Your task to perform on an android device: turn on wifi Image 0: 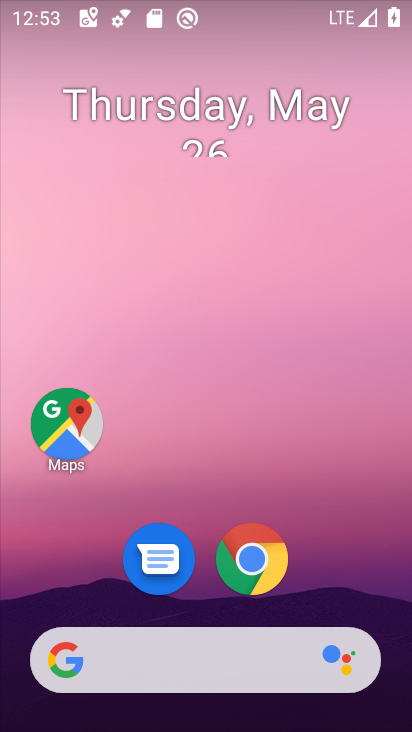
Step 0: press home button
Your task to perform on an android device: turn on wifi Image 1: 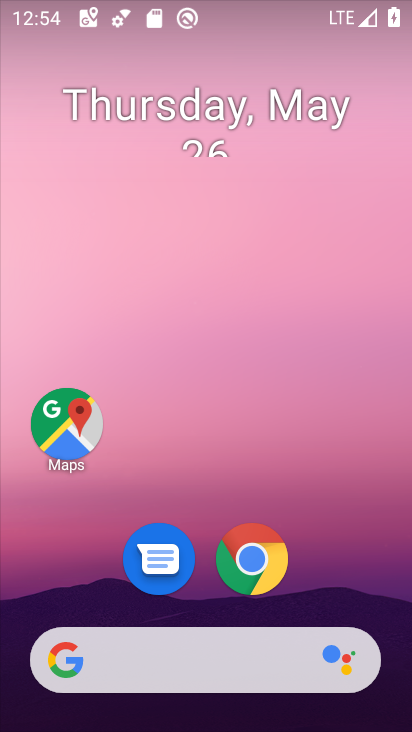
Step 1: drag from (216, 5) to (218, 404)
Your task to perform on an android device: turn on wifi Image 2: 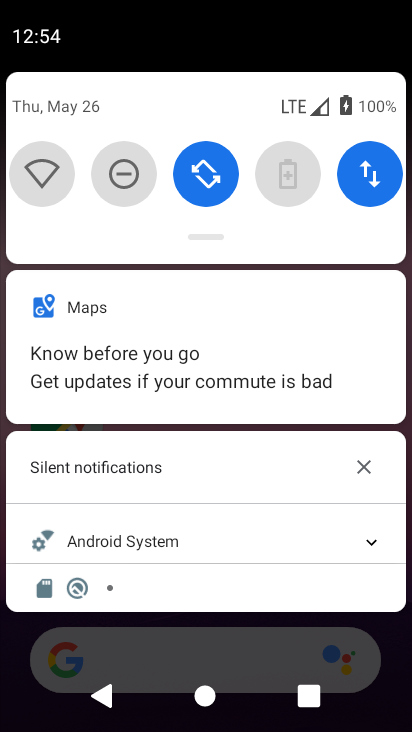
Step 2: click (42, 167)
Your task to perform on an android device: turn on wifi Image 3: 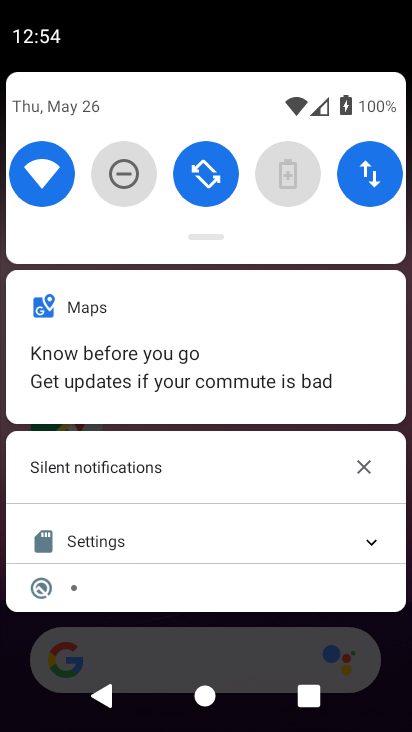
Step 3: press home button
Your task to perform on an android device: turn on wifi Image 4: 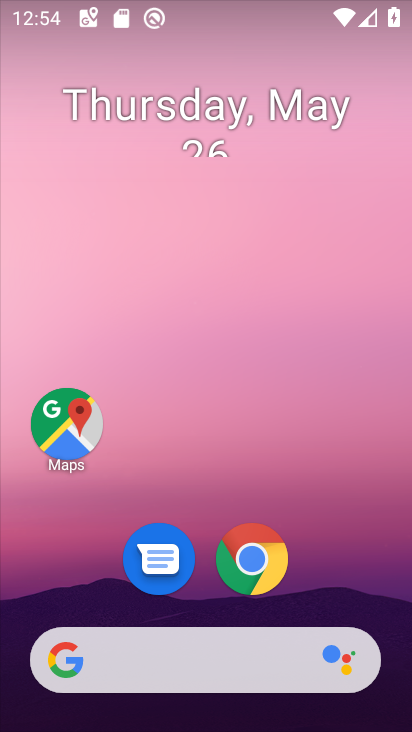
Step 4: drag from (323, 576) to (325, 180)
Your task to perform on an android device: turn on wifi Image 5: 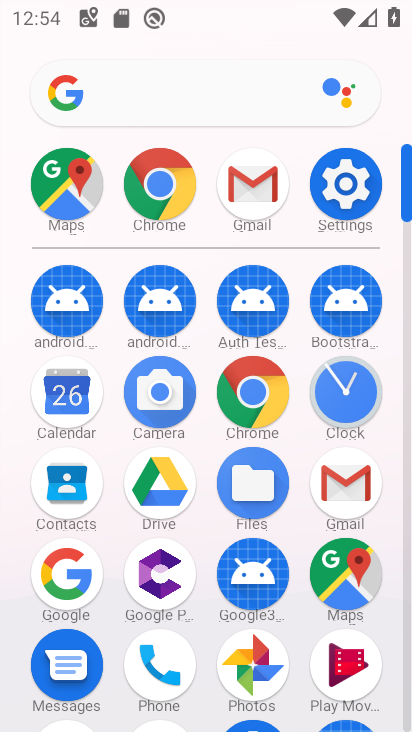
Step 5: click (346, 172)
Your task to perform on an android device: turn on wifi Image 6: 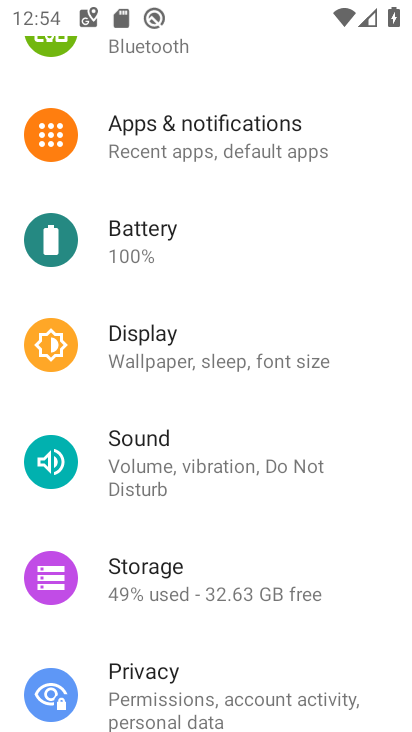
Step 6: drag from (247, 75) to (235, 671)
Your task to perform on an android device: turn on wifi Image 7: 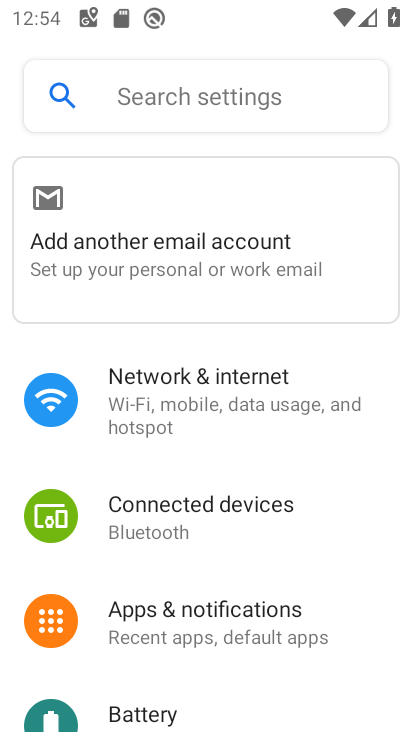
Step 7: click (175, 404)
Your task to perform on an android device: turn on wifi Image 8: 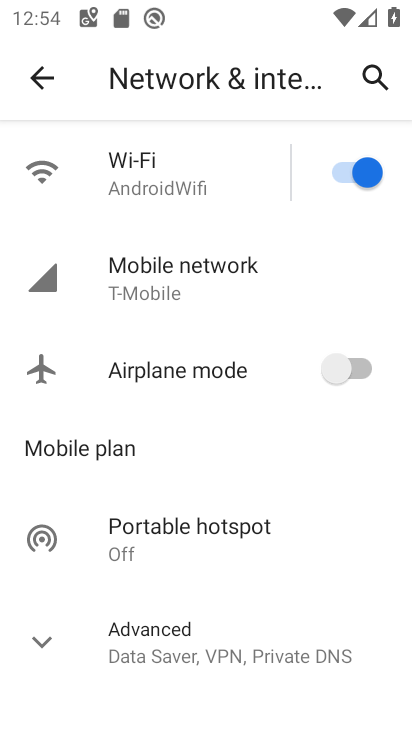
Step 8: task complete